Your task to perform on an android device: open a new tab in the chrome app Image 0: 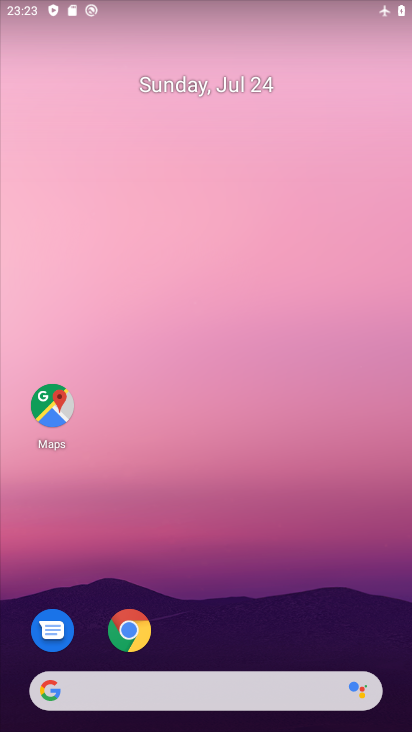
Step 0: click (131, 621)
Your task to perform on an android device: open a new tab in the chrome app Image 1: 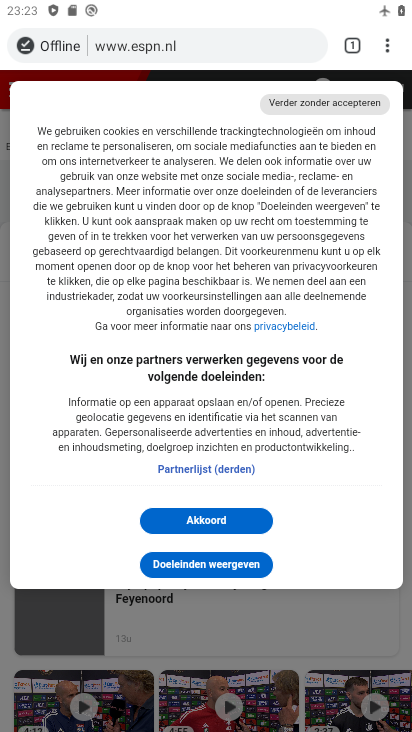
Step 1: click (391, 43)
Your task to perform on an android device: open a new tab in the chrome app Image 2: 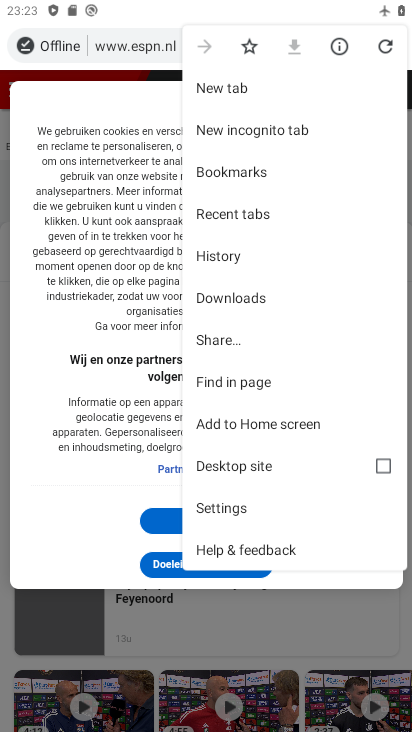
Step 2: click (217, 85)
Your task to perform on an android device: open a new tab in the chrome app Image 3: 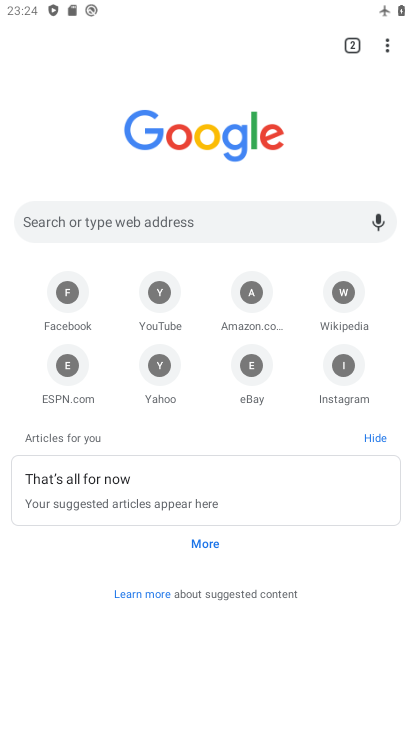
Step 3: task complete